Your task to perform on an android device: turn off notifications in google photos Image 0: 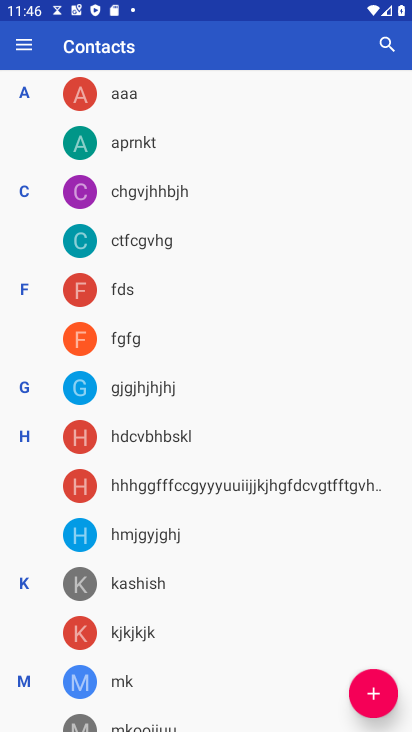
Step 0: press home button
Your task to perform on an android device: turn off notifications in google photos Image 1: 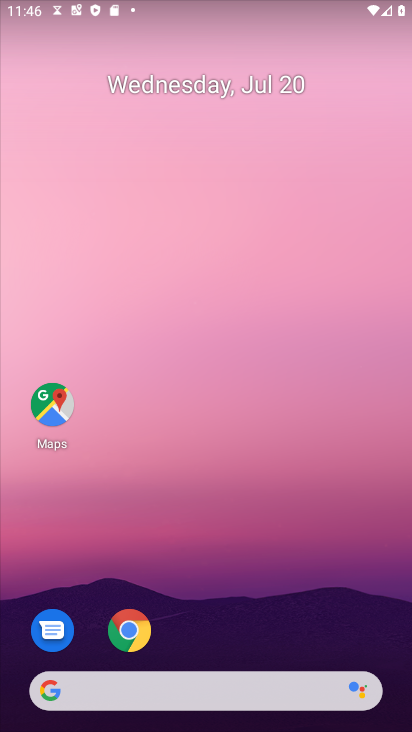
Step 1: drag from (30, 705) to (220, 228)
Your task to perform on an android device: turn off notifications in google photos Image 2: 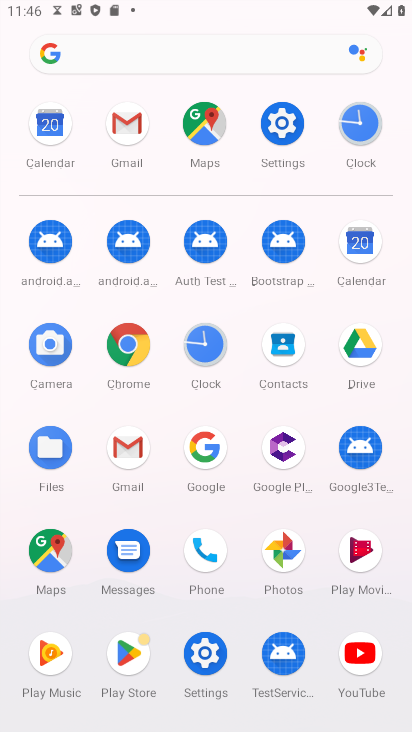
Step 2: click (291, 564)
Your task to perform on an android device: turn off notifications in google photos Image 3: 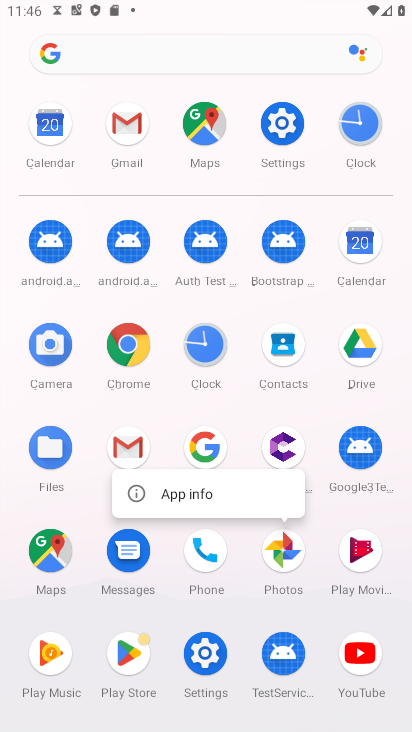
Step 3: click (196, 658)
Your task to perform on an android device: turn off notifications in google photos Image 4: 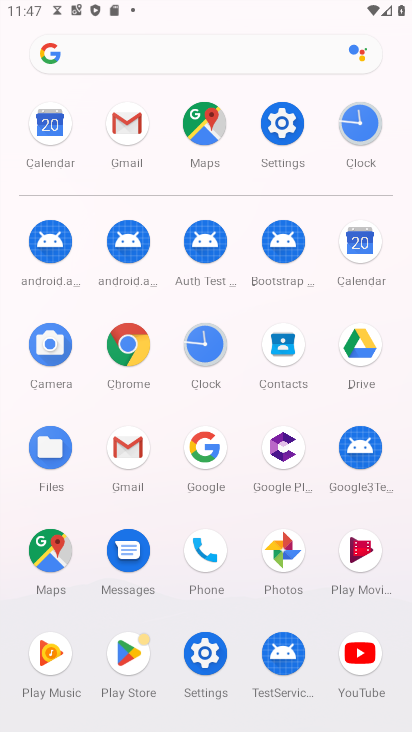
Step 4: click (275, 556)
Your task to perform on an android device: turn off notifications in google photos Image 5: 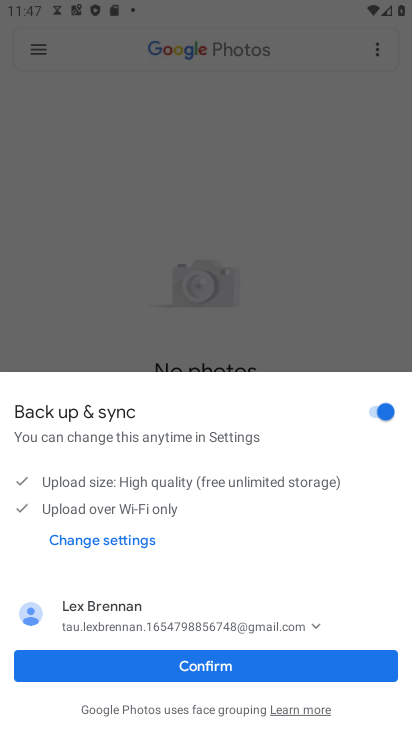
Step 5: click (202, 676)
Your task to perform on an android device: turn off notifications in google photos Image 6: 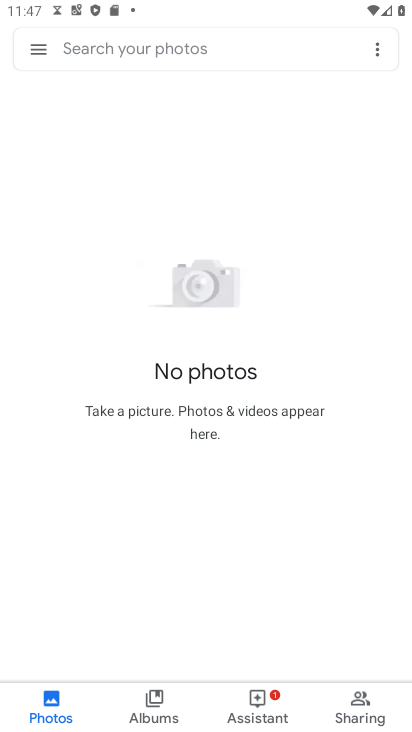
Step 6: click (39, 52)
Your task to perform on an android device: turn off notifications in google photos Image 7: 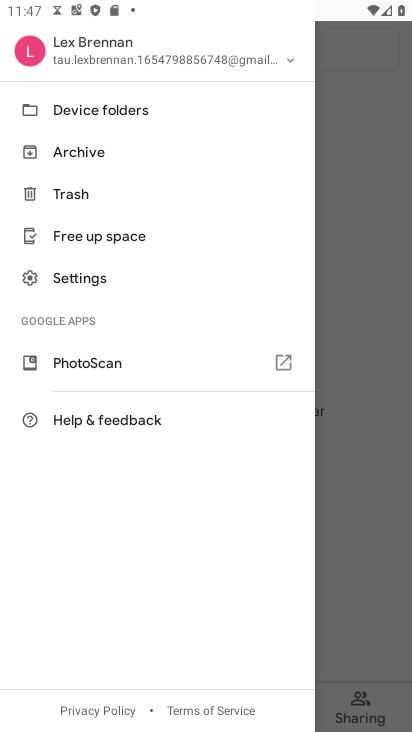
Step 7: click (86, 285)
Your task to perform on an android device: turn off notifications in google photos Image 8: 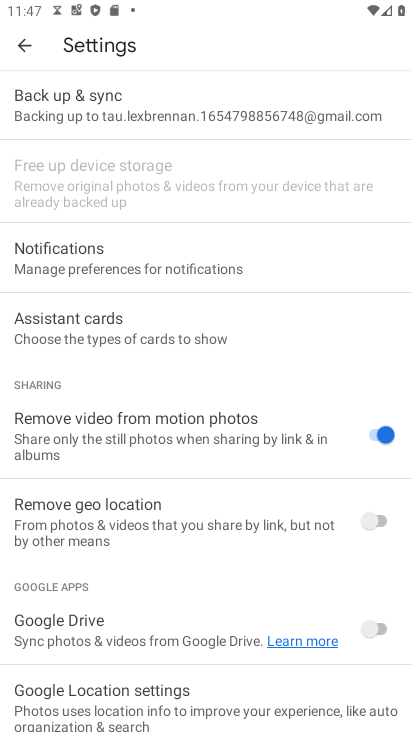
Step 8: click (75, 267)
Your task to perform on an android device: turn off notifications in google photos Image 9: 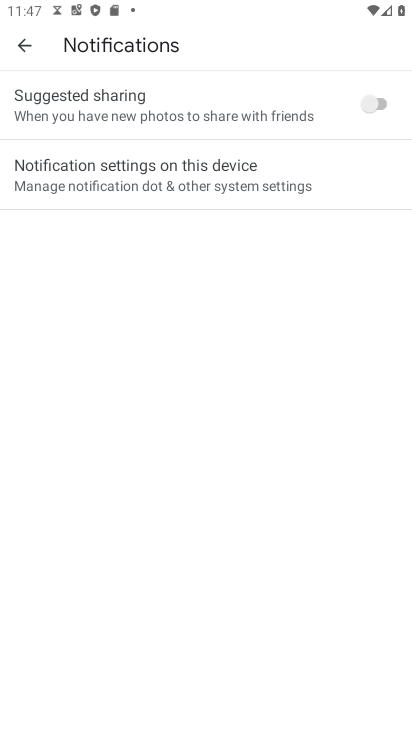
Step 9: click (153, 167)
Your task to perform on an android device: turn off notifications in google photos Image 10: 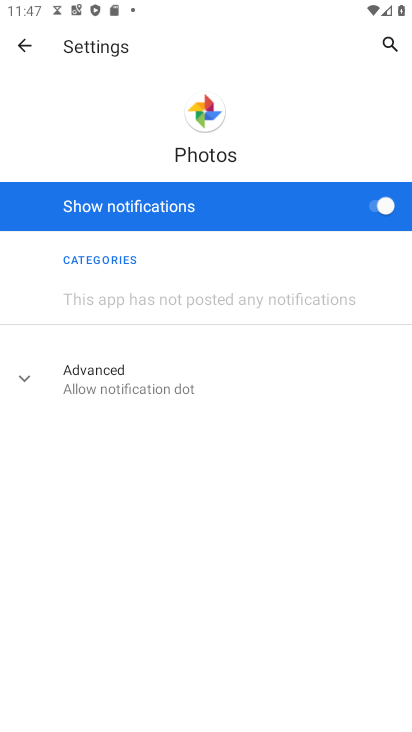
Step 10: click (385, 211)
Your task to perform on an android device: turn off notifications in google photos Image 11: 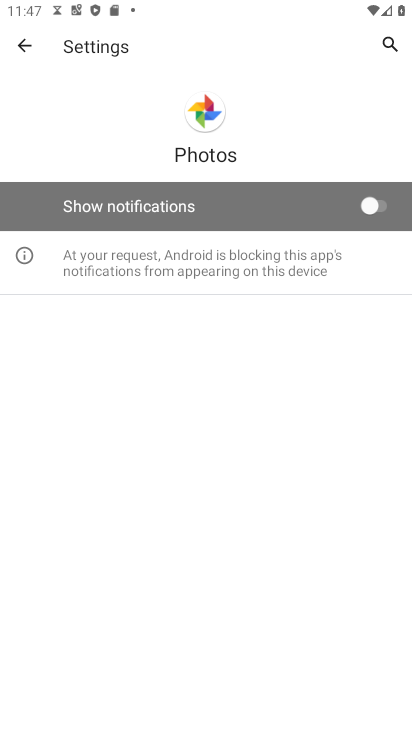
Step 11: task complete